Your task to perform on an android device: install app "ZOOM Cloud Meetings" Image 0: 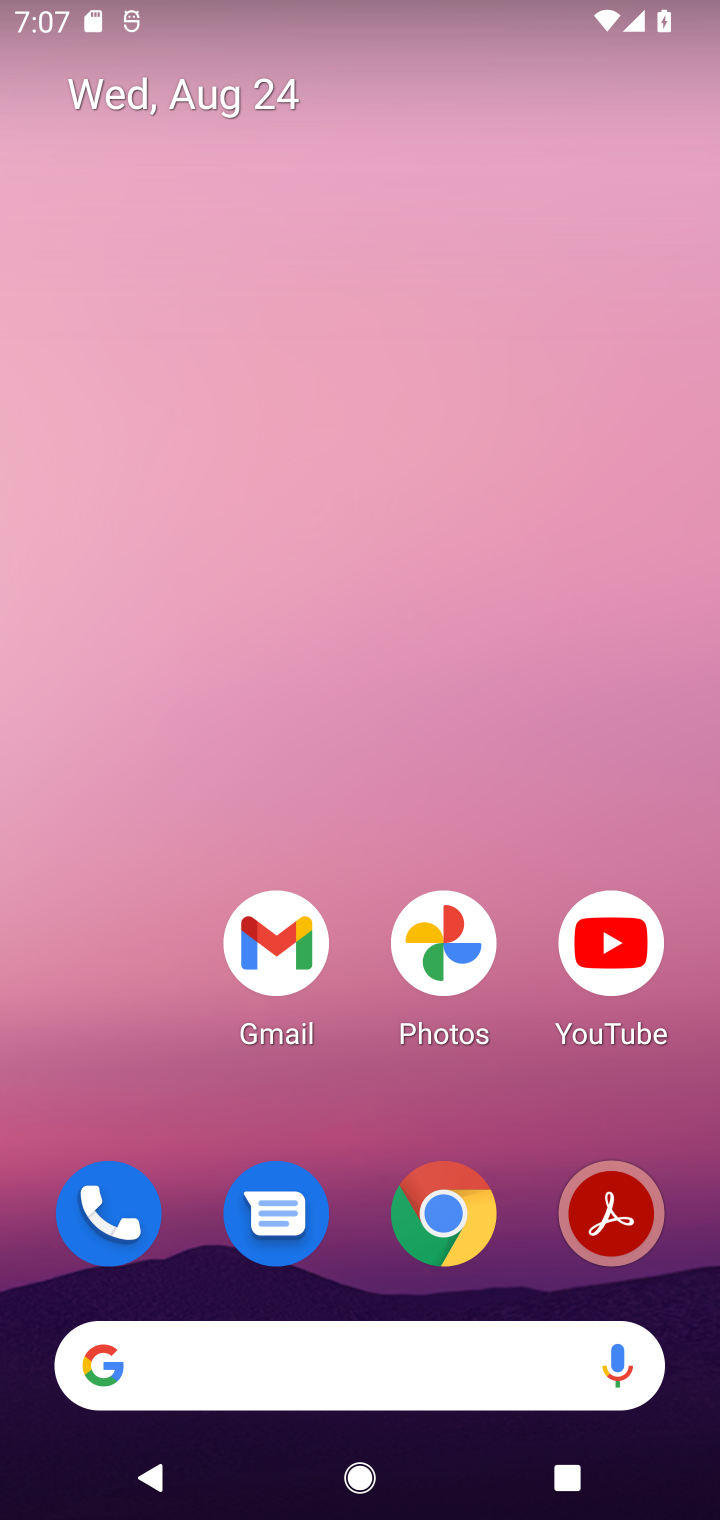
Step 0: press home button
Your task to perform on an android device: install app "ZOOM Cloud Meetings" Image 1: 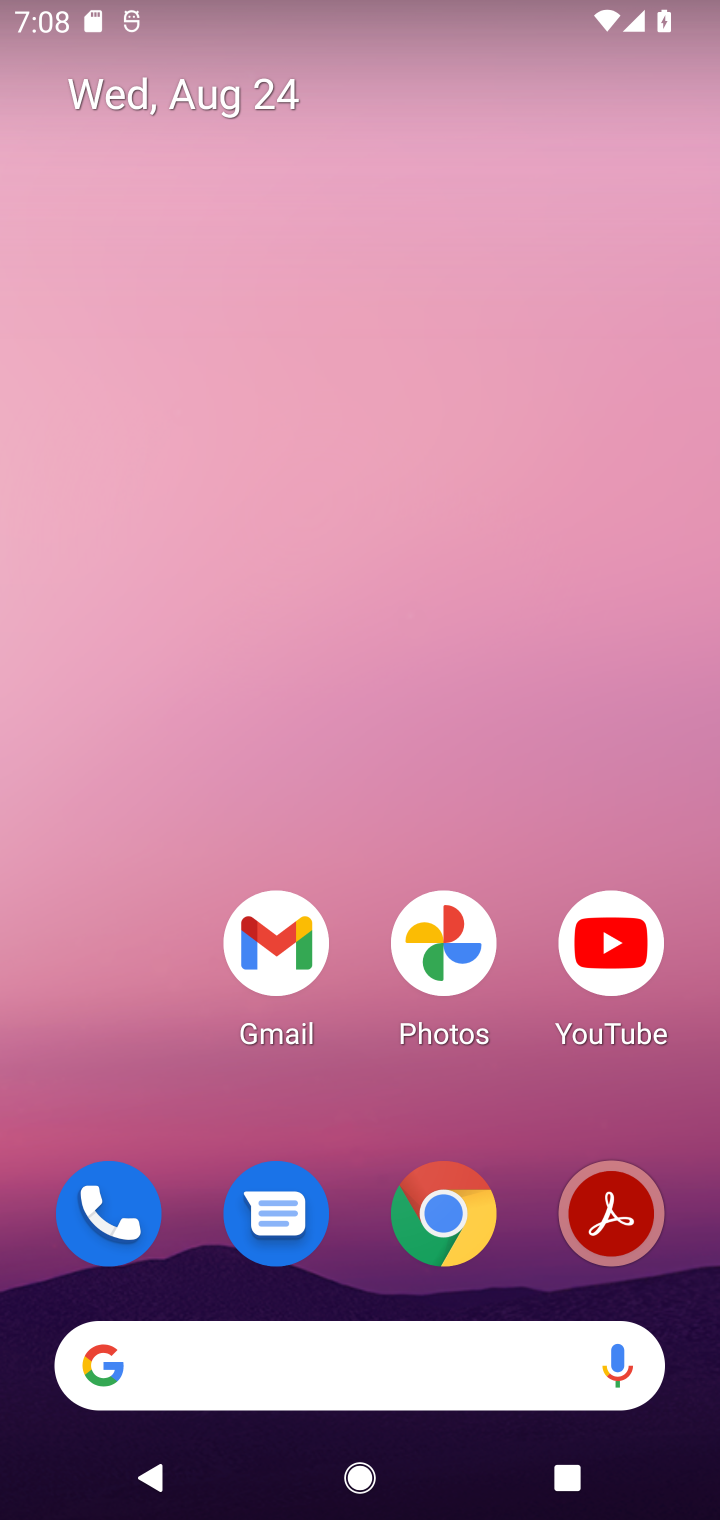
Step 1: drag from (361, 1160) to (339, 31)
Your task to perform on an android device: install app "ZOOM Cloud Meetings" Image 2: 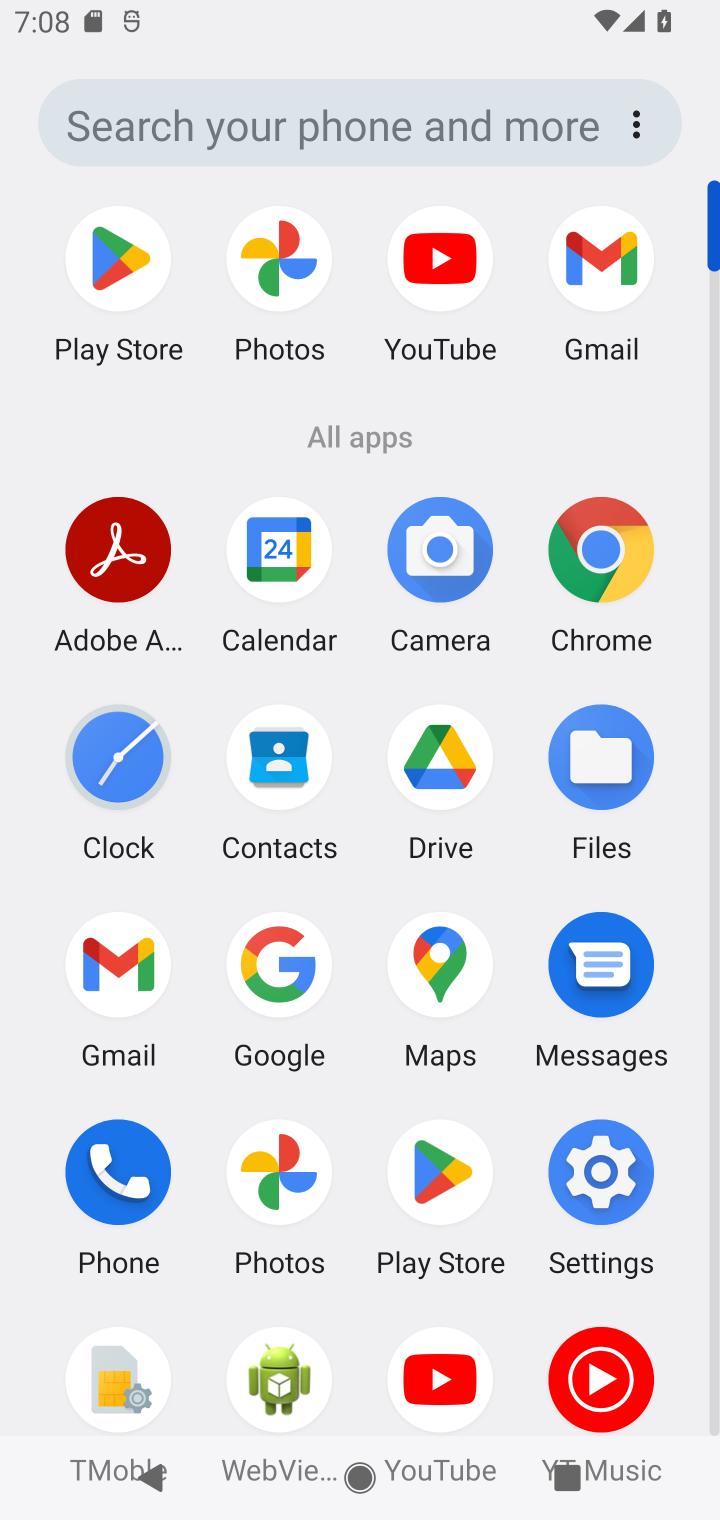
Step 2: click (104, 242)
Your task to perform on an android device: install app "ZOOM Cloud Meetings" Image 3: 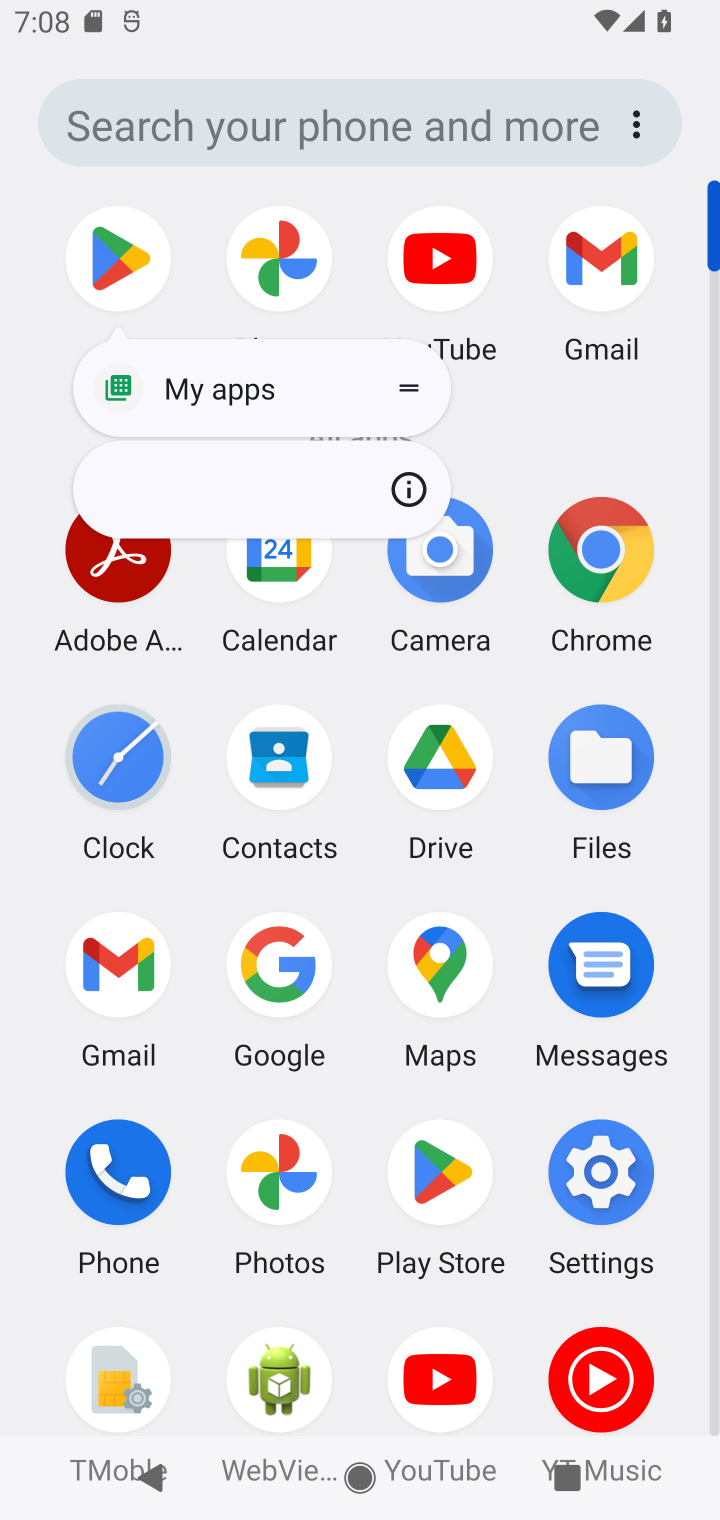
Step 3: click (104, 242)
Your task to perform on an android device: install app "ZOOM Cloud Meetings" Image 4: 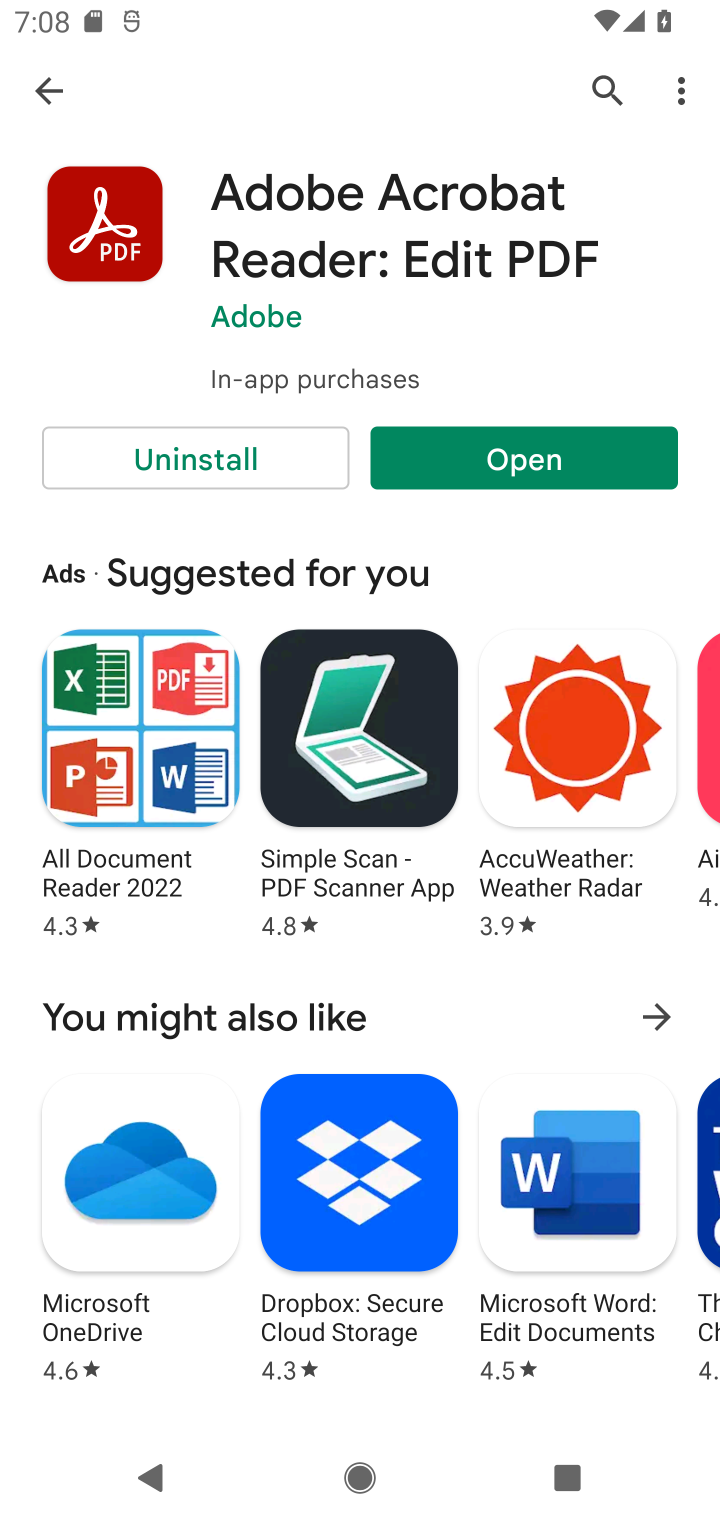
Step 4: click (603, 80)
Your task to perform on an android device: install app "ZOOM Cloud Meetings" Image 5: 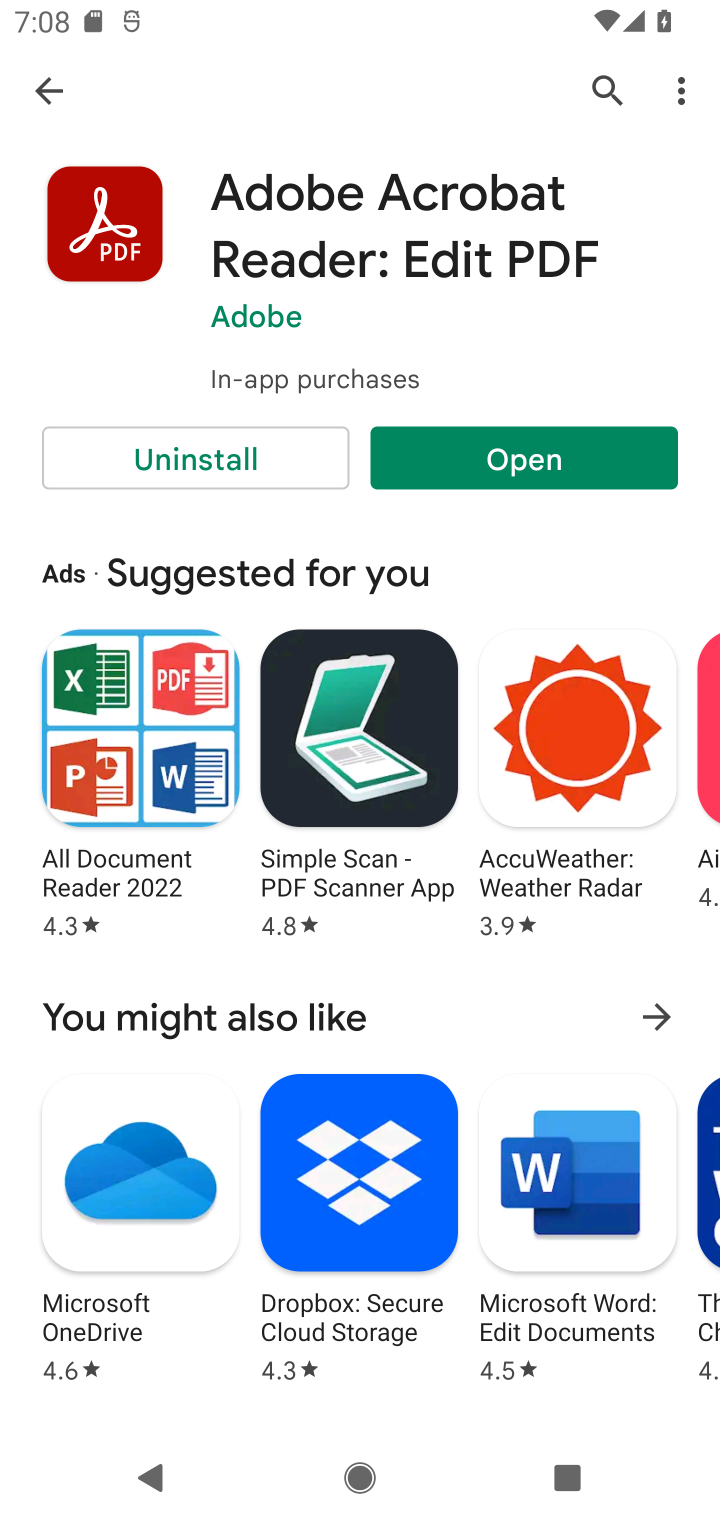
Step 5: click (56, 111)
Your task to perform on an android device: install app "ZOOM Cloud Meetings" Image 6: 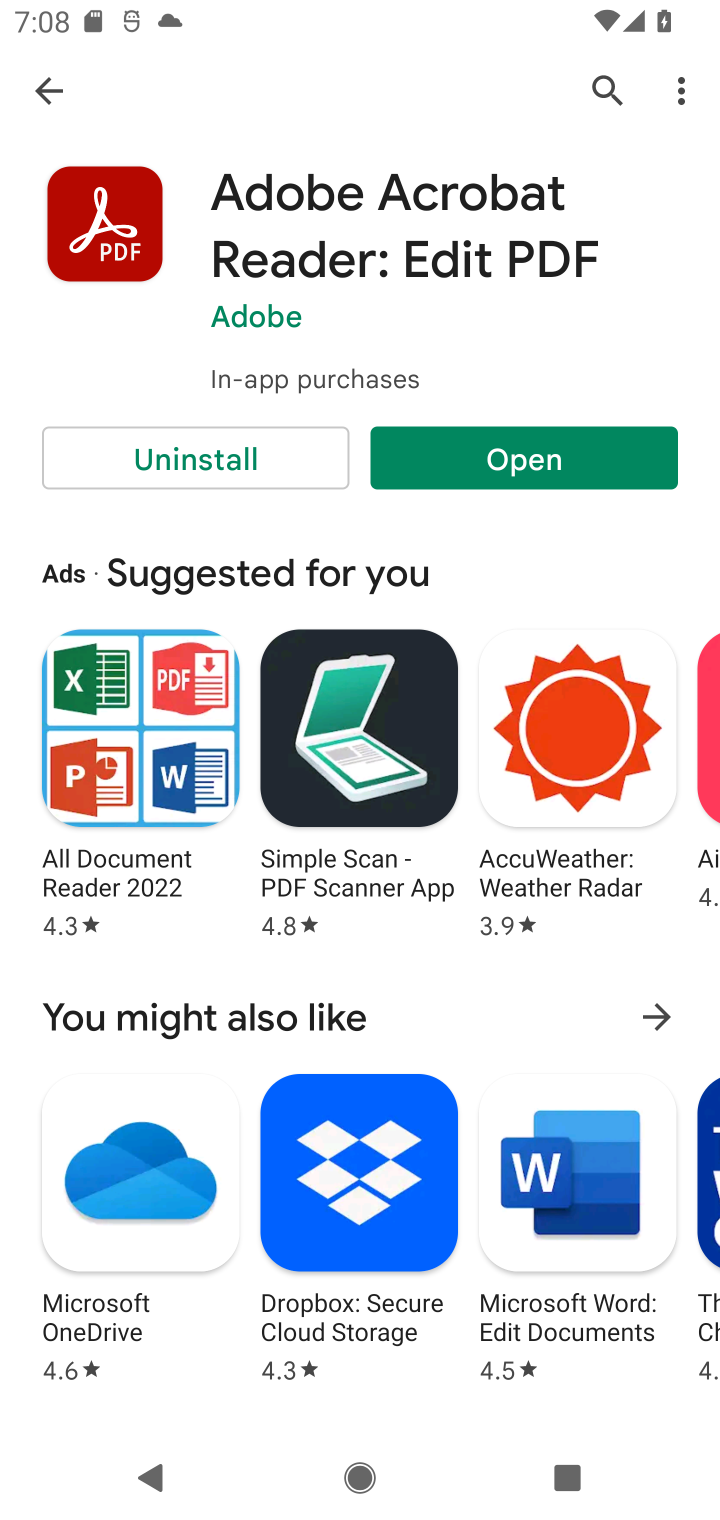
Step 6: click (609, 86)
Your task to perform on an android device: install app "ZOOM Cloud Meetings" Image 7: 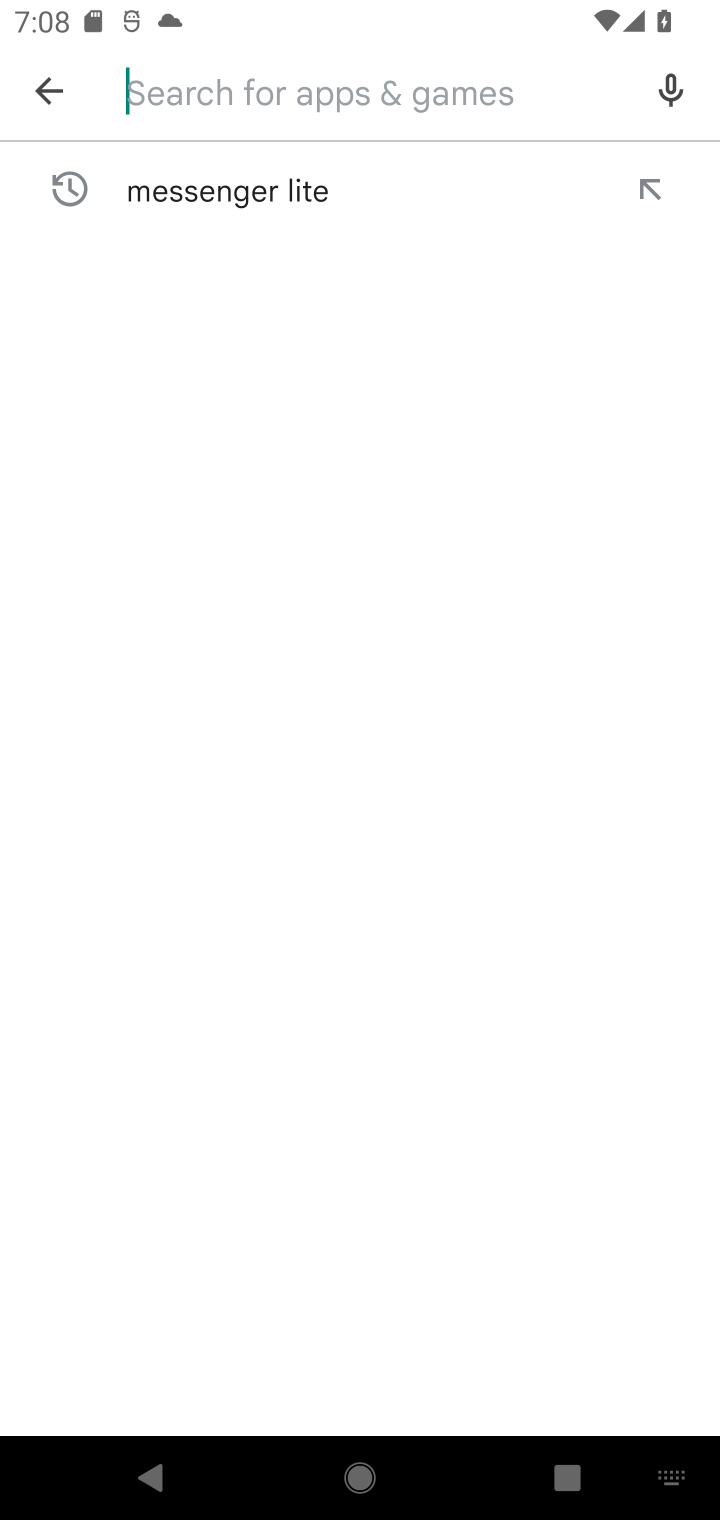
Step 7: type "ZOOM Cloud Meetings"
Your task to perform on an android device: install app "ZOOM Cloud Meetings" Image 8: 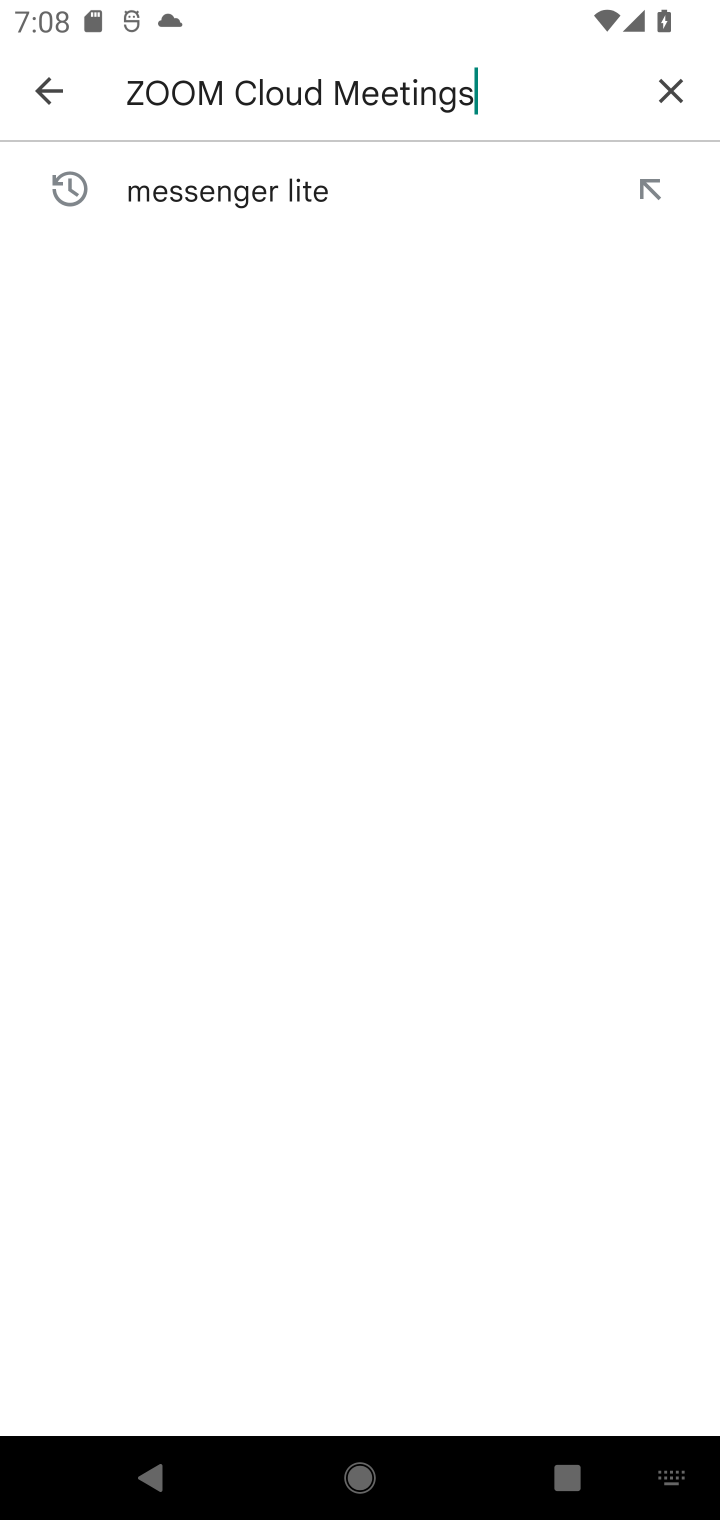
Step 8: type ""
Your task to perform on an android device: install app "ZOOM Cloud Meetings" Image 9: 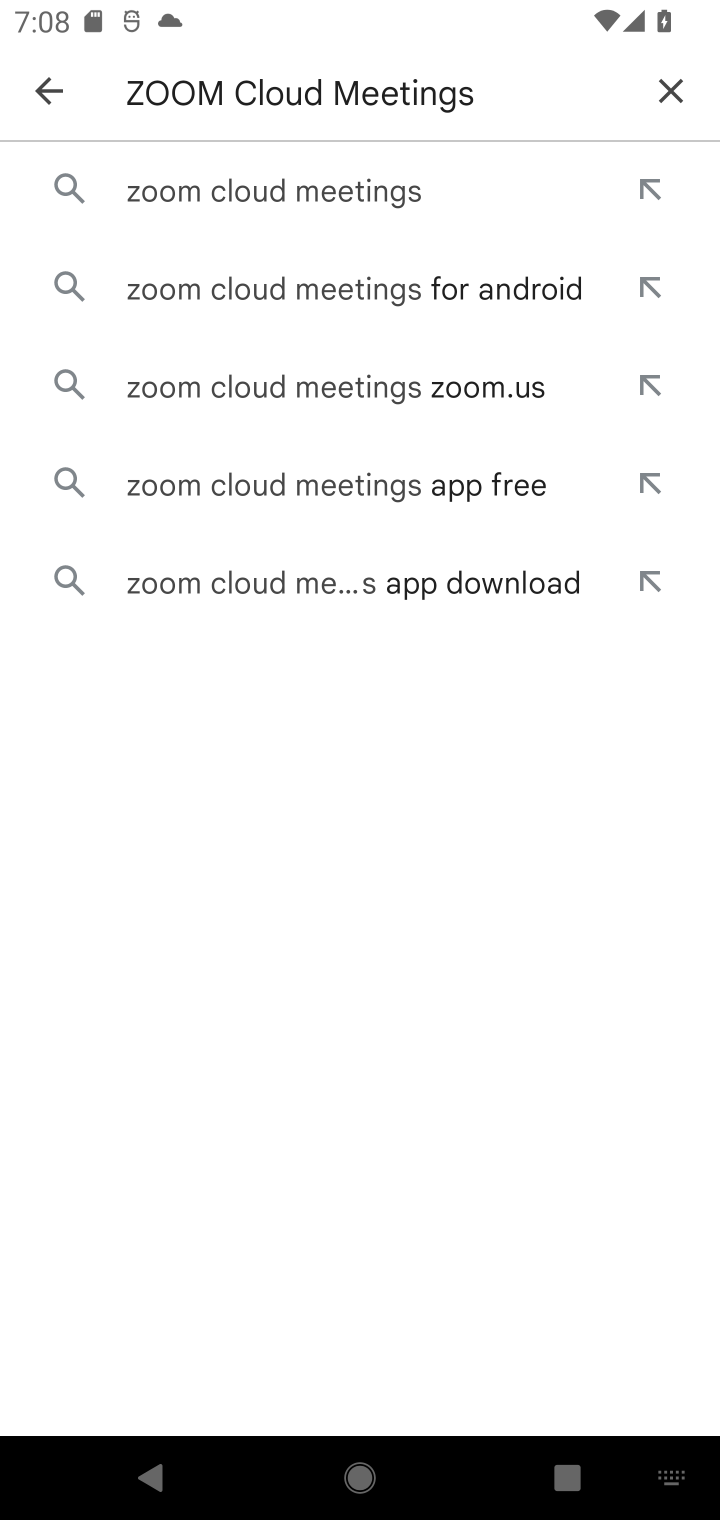
Step 9: click (438, 188)
Your task to perform on an android device: install app "ZOOM Cloud Meetings" Image 10: 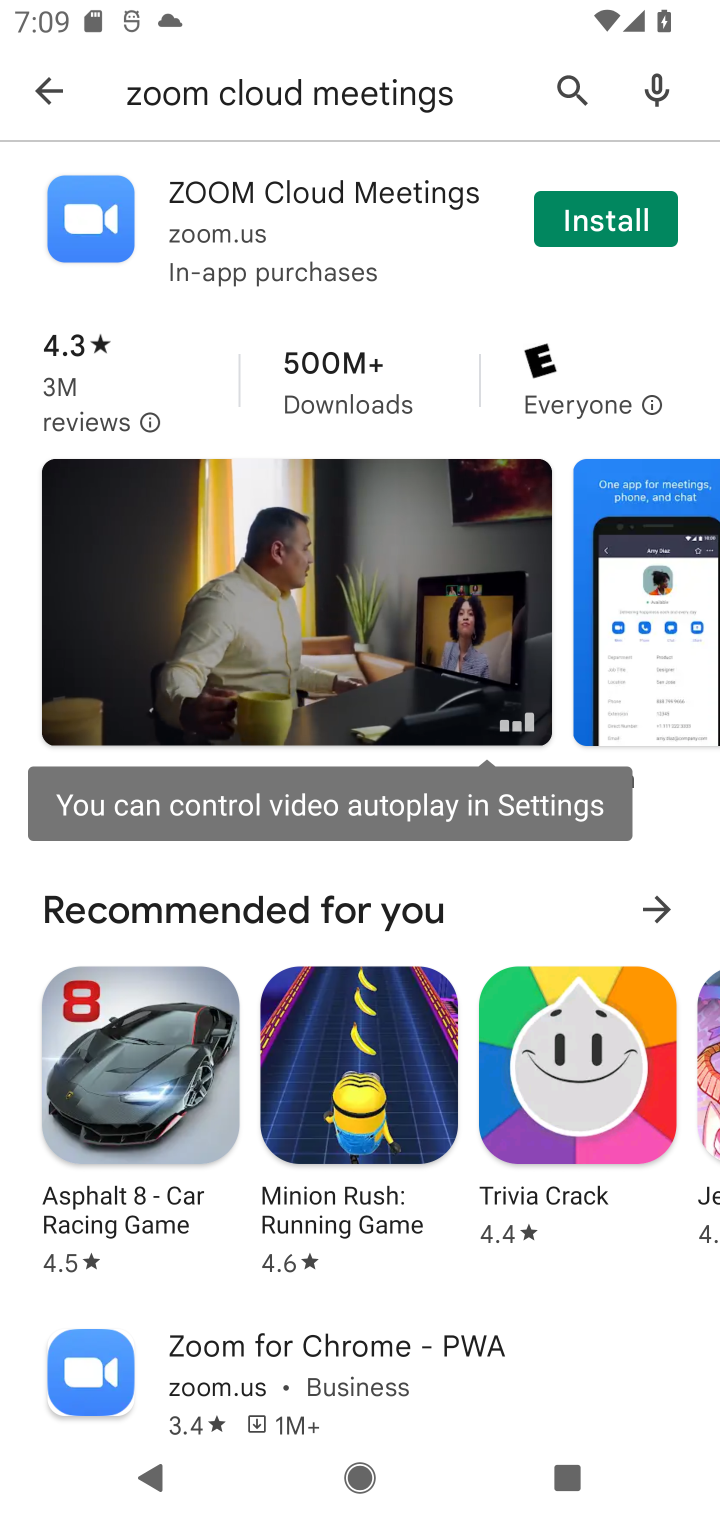
Step 10: click (603, 217)
Your task to perform on an android device: install app "ZOOM Cloud Meetings" Image 11: 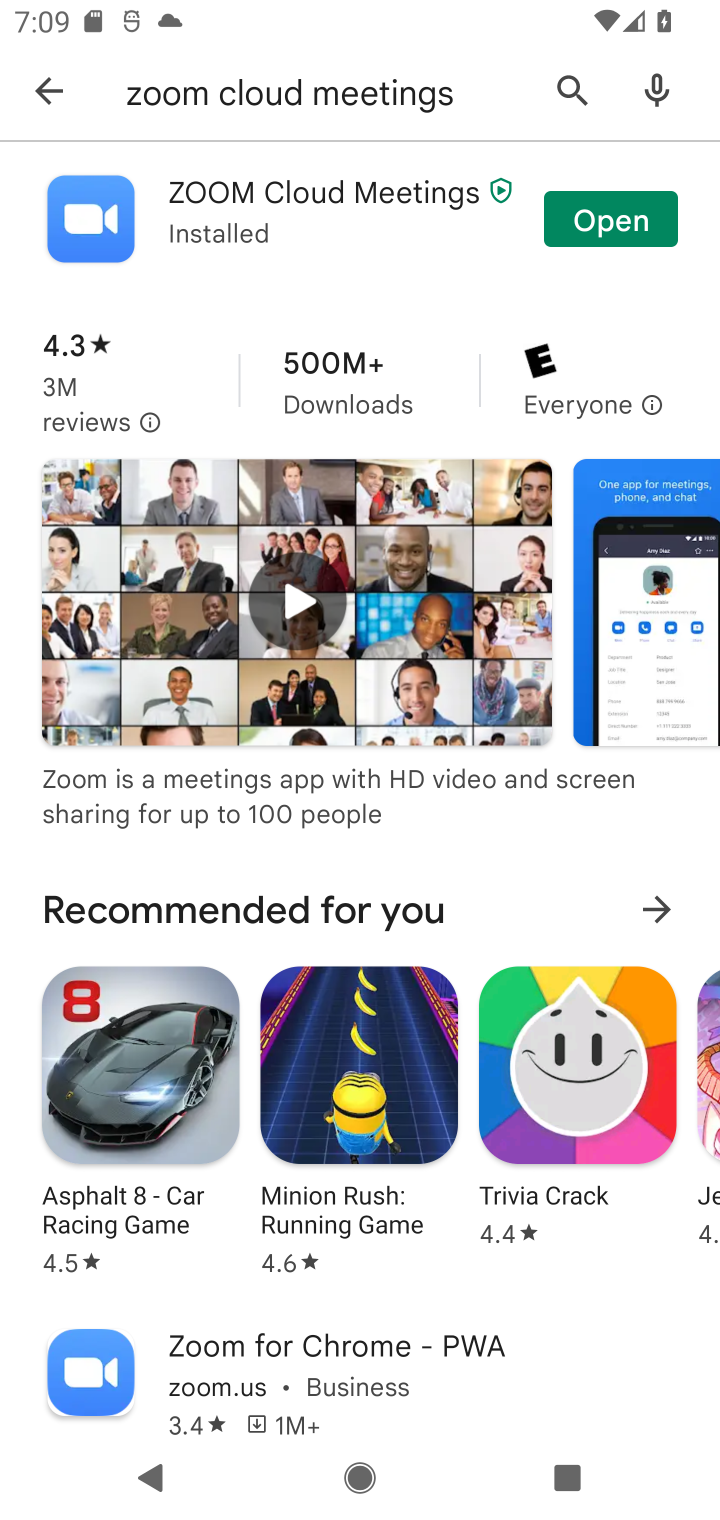
Step 11: click (609, 209)
Your task to perform on an android device: install app "ZOOM Cloud Meetings" Image 12: 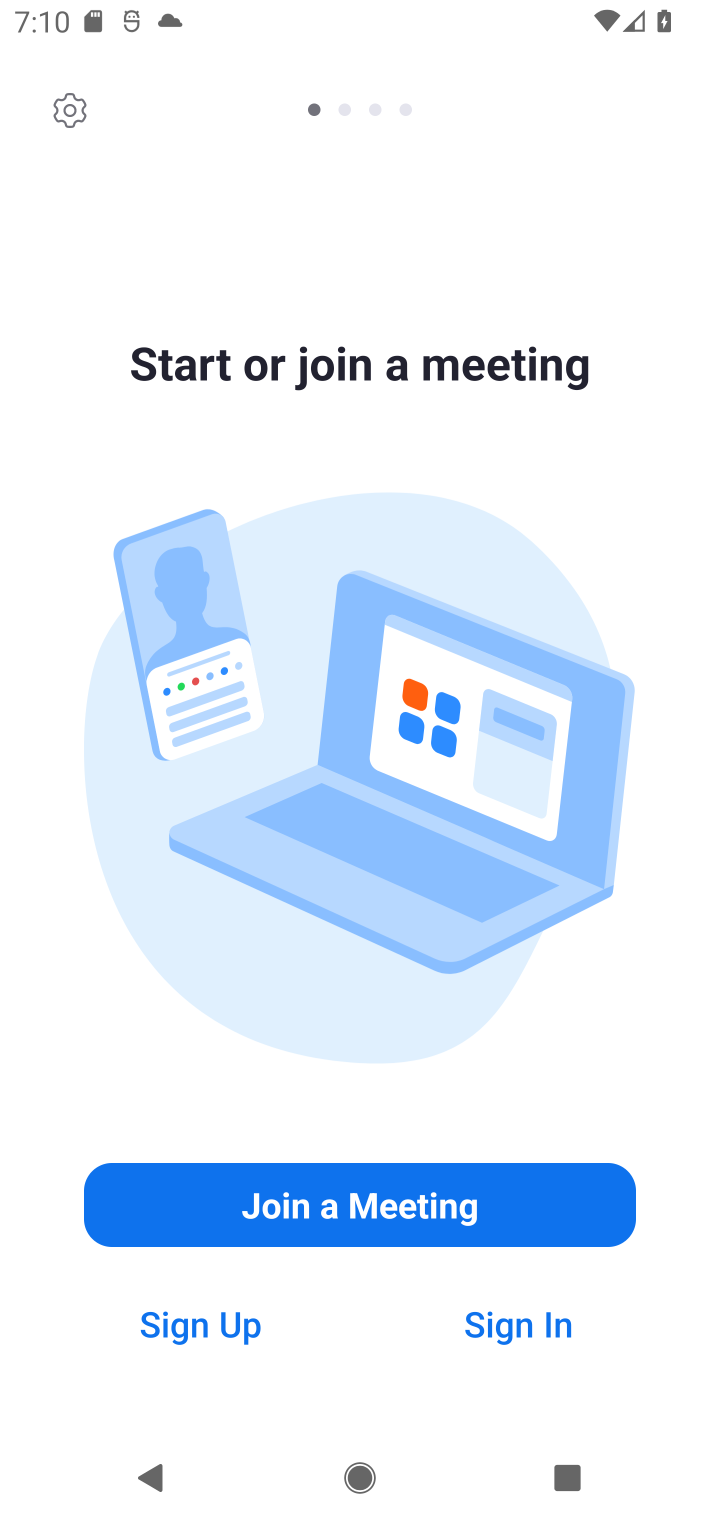
Step 12: task complete